Your task to perform on an android device: Go to sound settings Image 0: 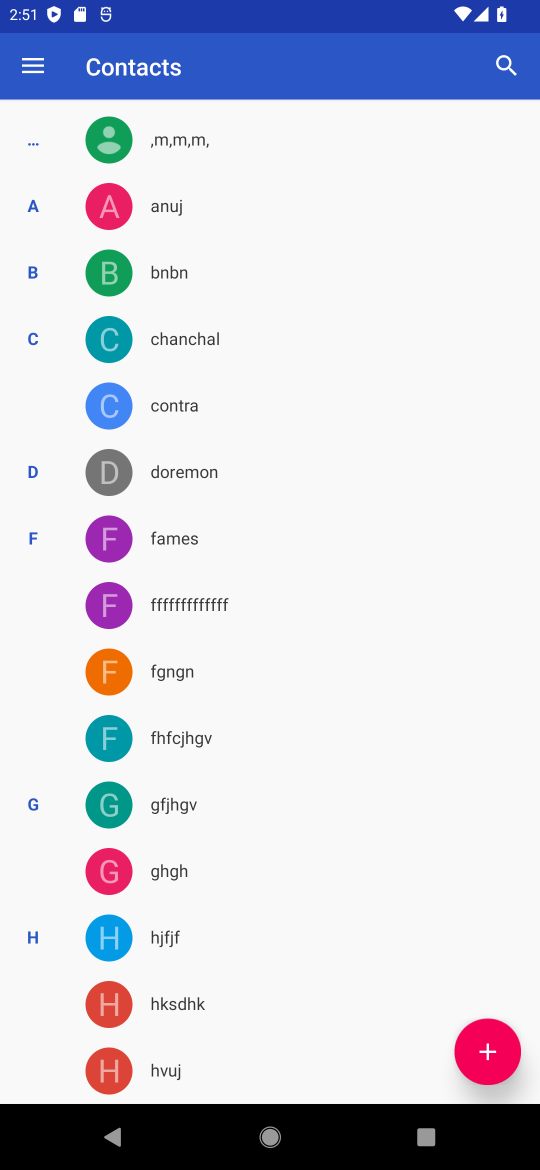
Step 0: press home button
Your task to perform on an android device: Go to sound settings Image 1: 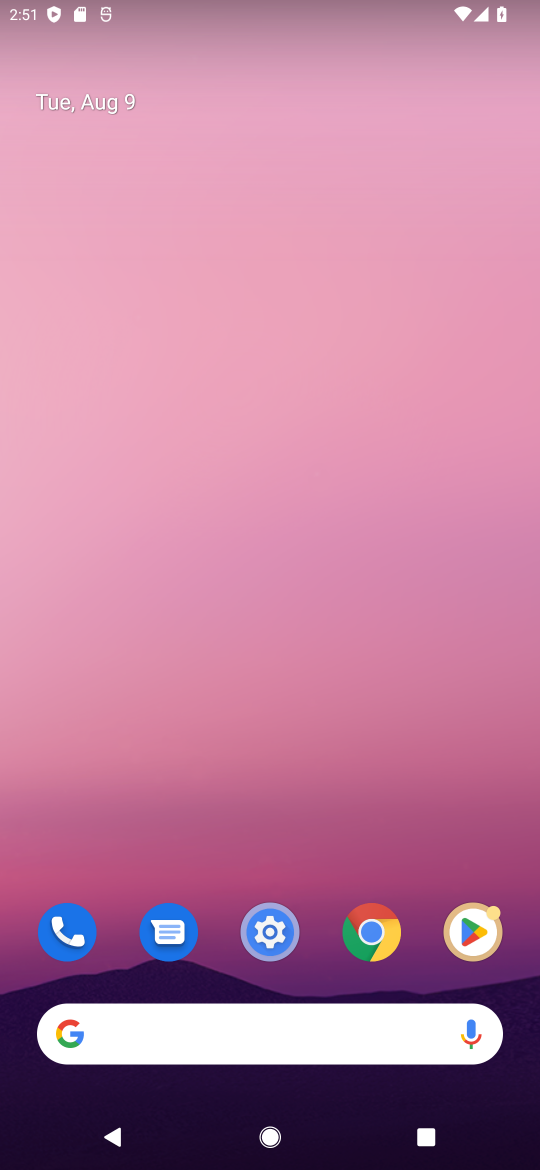
Step 1: click (259, 931)
Your task to perform on an android device: Go to sound settings Image 2: 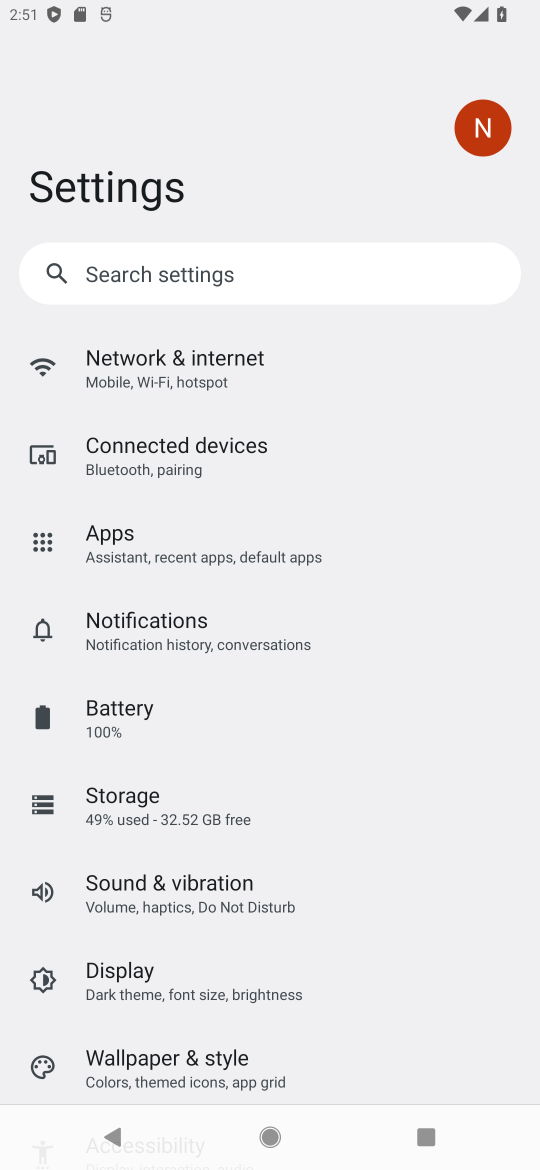
Step 2: drag from (426, 995) to (483, 477)
Your task to perform on an android device: Go to sound settings Image 3: 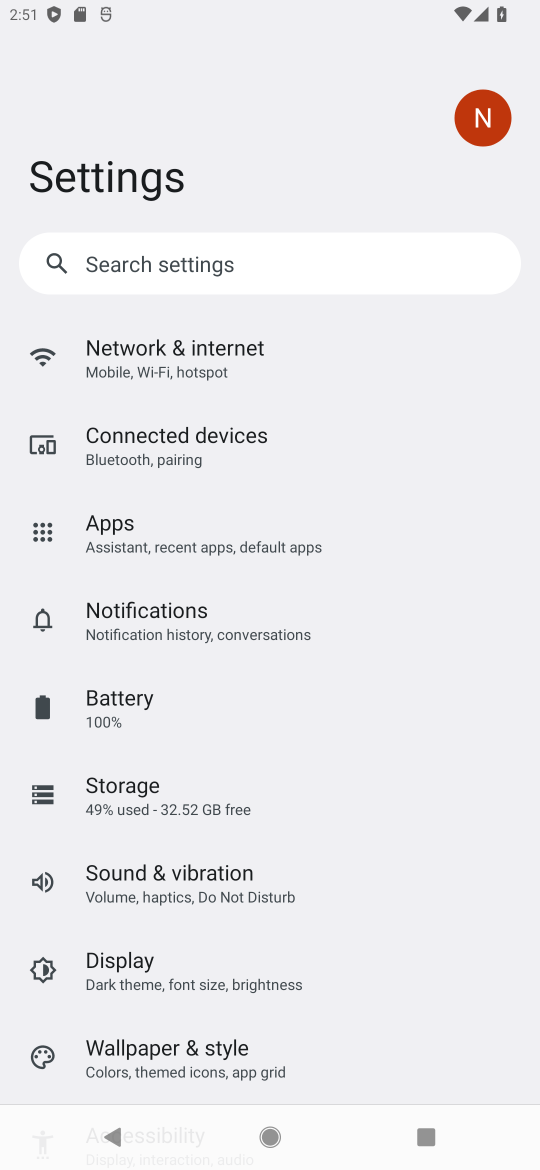
Step 3: click (188, 874)
Your task to perform on an android device: Go to sound settings Image 4: 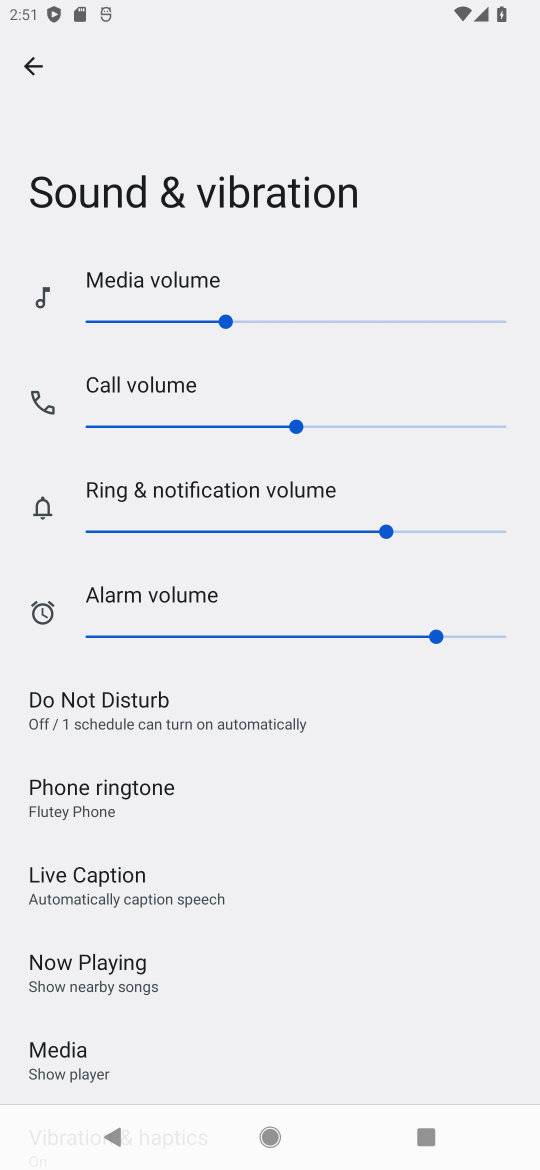
Step 4: task complete